Your task to perform on an android device: Open calendar and show me the third week of next month Image 0: 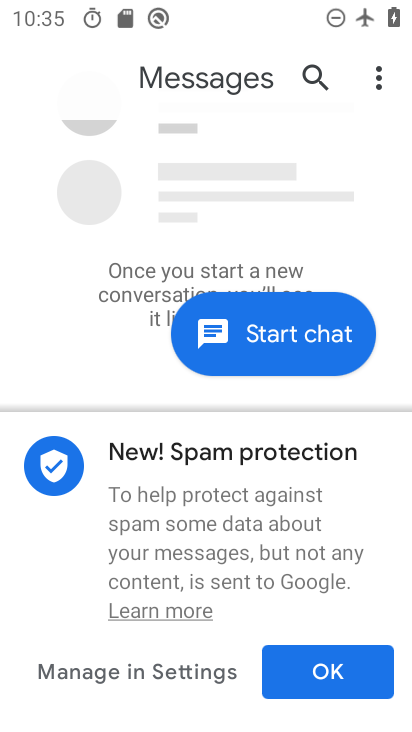
Step 0: press home button
Your task to perform on an android device: Open calendar and show me the third week of next month Image 1: 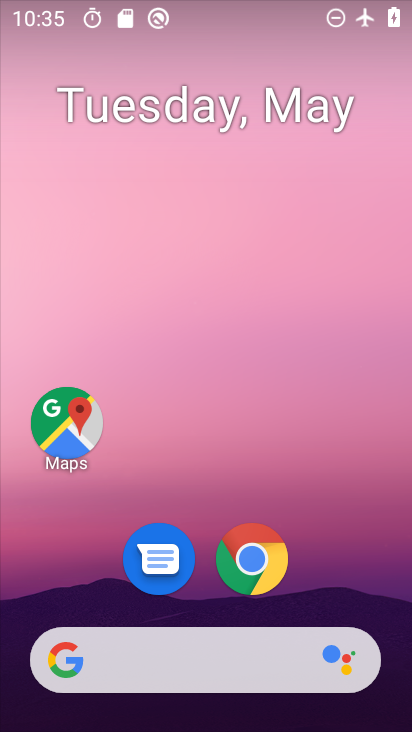
Step 1: drag from (401, 636) to (300, 116)
Your task to perform on an android device: Open calendar and show me the third week of next month Image 2: 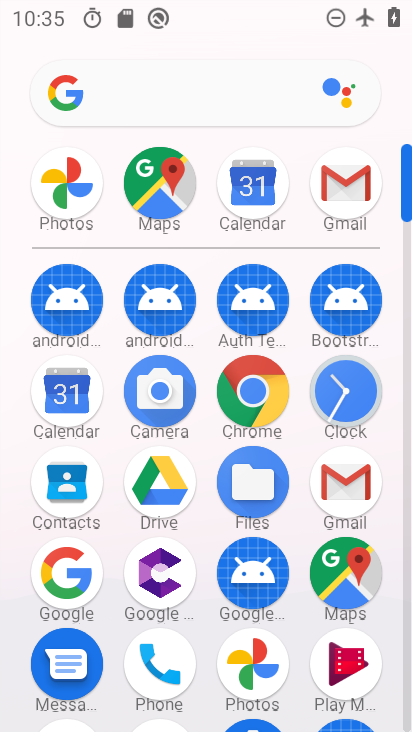
Step 2: click (69, 411)
Your task to perform on an android device: Open calendar and show me the third week of next month Image 3: 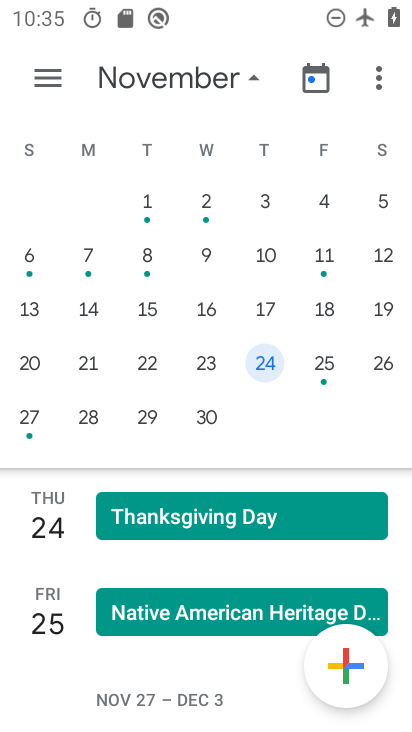
Step 3: drag from (375, 327) to (60, 310)
Your task to perform on an android device: Open calendar and show me the third week of next month Image 4: 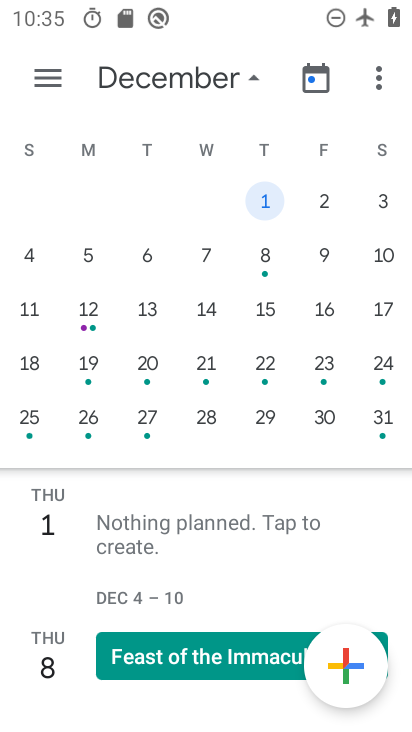
Step 4: click (204, 375)
Your task to perform on an android device: Open calendar and show me the third week of next month Image 5: 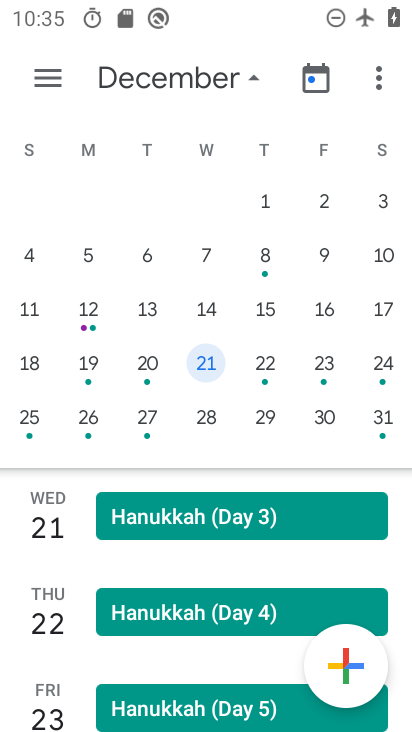
Step 5: task complete